Your task to perform on an android device: turn on notifications settings in the gmail app Image 0: 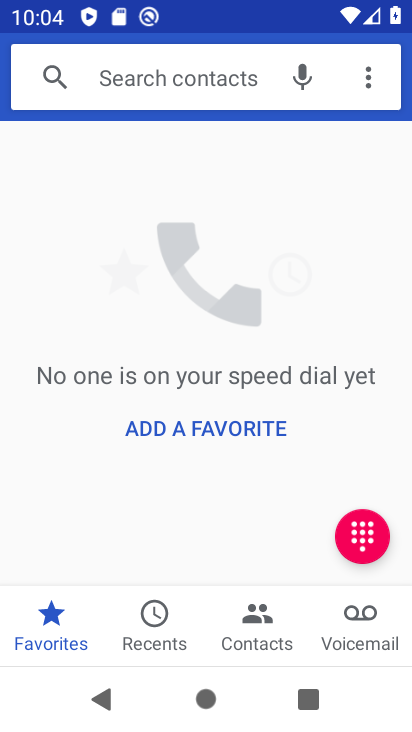
Step 0: press home button
Your task to perform on an android device: turn on notifications settings in the gmail app Image 1: 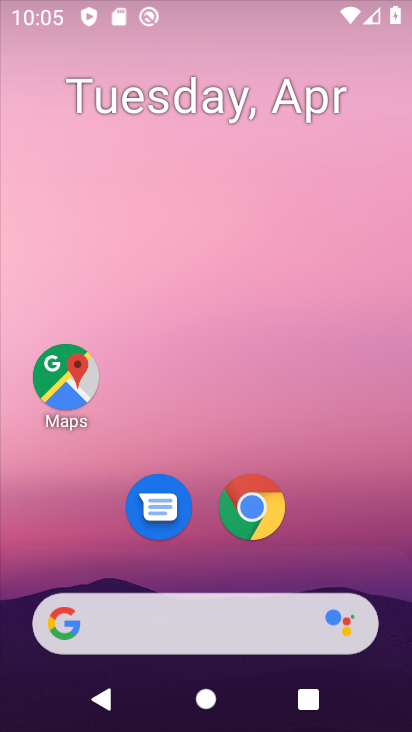
Step 1: drag from (92, 523) to (283, 178)
Your task to perform on an android device: turn on notifications settings in the gmail app Image 2: 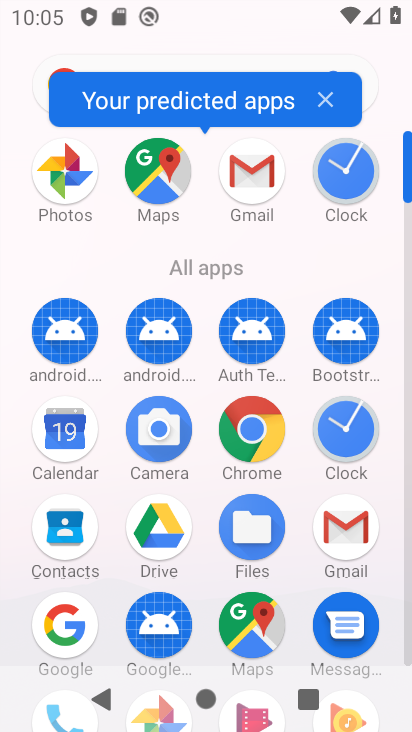
Step 2: click (349, 518)
Your task to perform on an android device: turn on notifications settings in the gmail app Image 3: 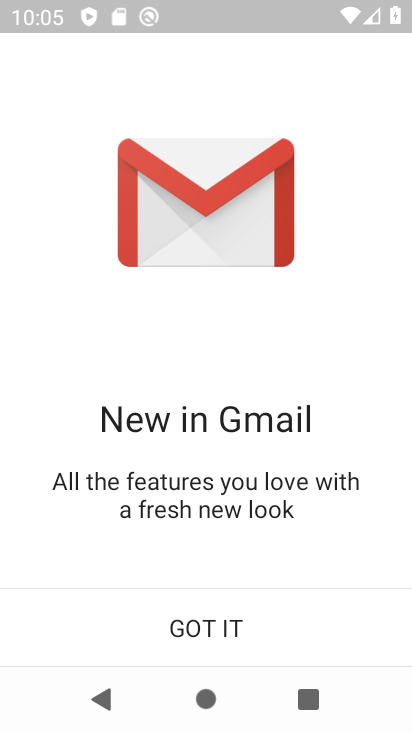
Step 3: click (197, 633)
Your task to perform on an android device: turn on notifications settings in the gmail app Image 4: 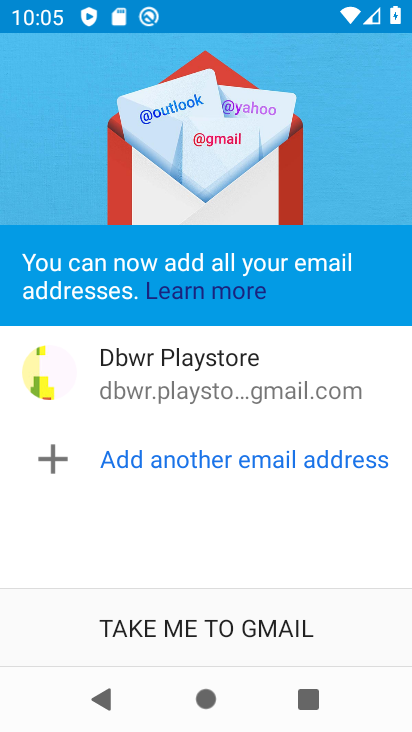
Step 4: click (183, 619)
Your task to perform on an android device: turn on notifications settings in the gmail app Image 5: 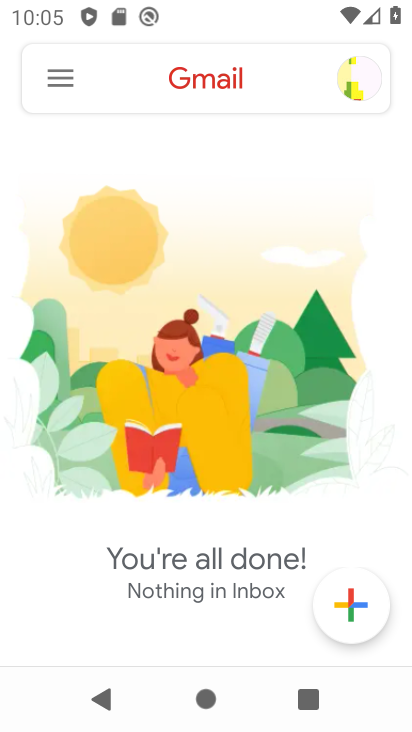
Step 5: click (59, 79)
Your task to perform on an android device: turn on notifications settings in the gmail app Image 6: 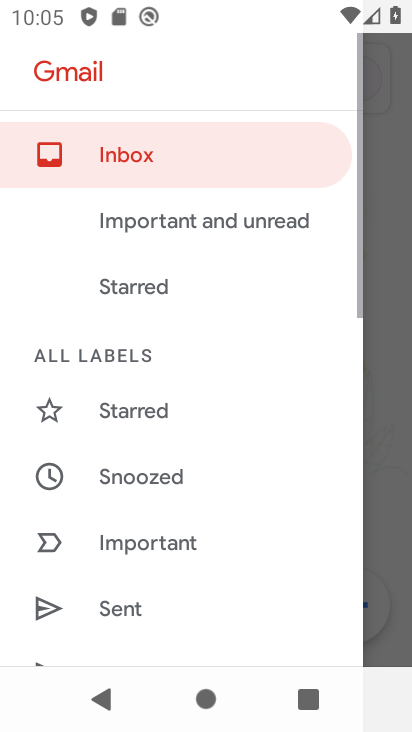
Step 6: drag from (222, 376) to (250, 154)
Your task to perform on an android device: turn on notifications settings in the gmail app Image 7: 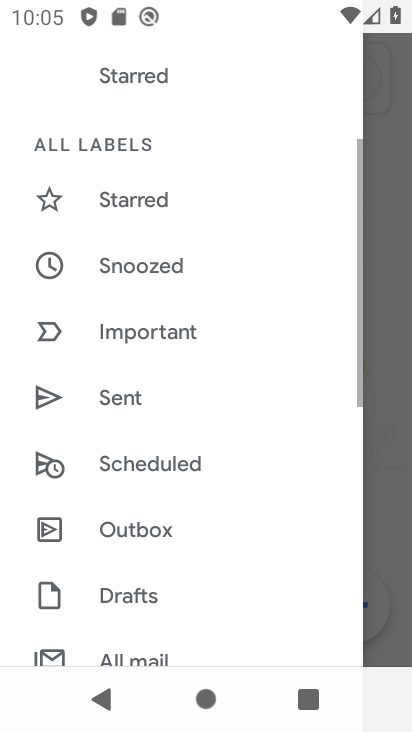
Step 7: drag from (89, 573) to (229, 195)
Your task to perform on an android device: turn on notifications settings in the gmail app Image 8: 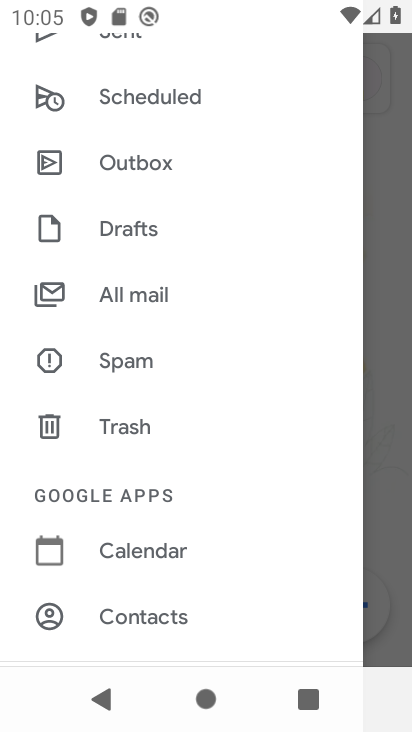
Step 8: drag from (134, 577) to (195, 265)
Your task to perform on an android device: turn on notifications settings in the gmail app Image 9: 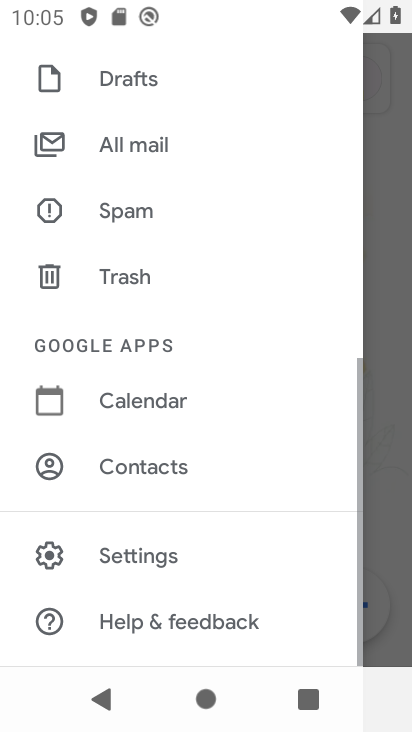
Step 9: click (126, 541)
Your task to perform on an android device: turn on notifications settings in the gmail app Image 10: 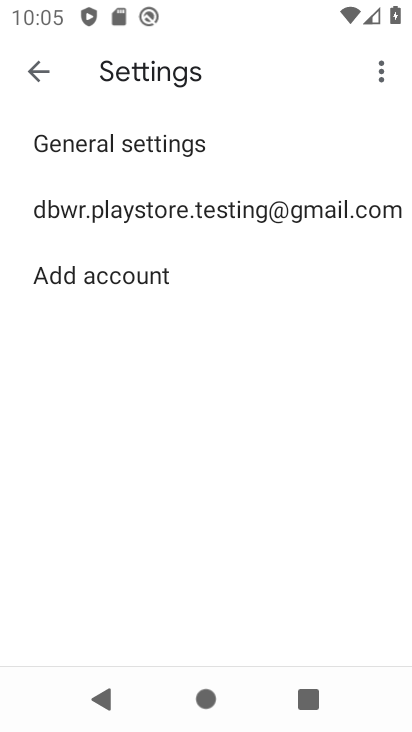
Step 10: click (180, 212)
Your task to perform on an android device: turn on notifications settings in the gmail app Image 11: 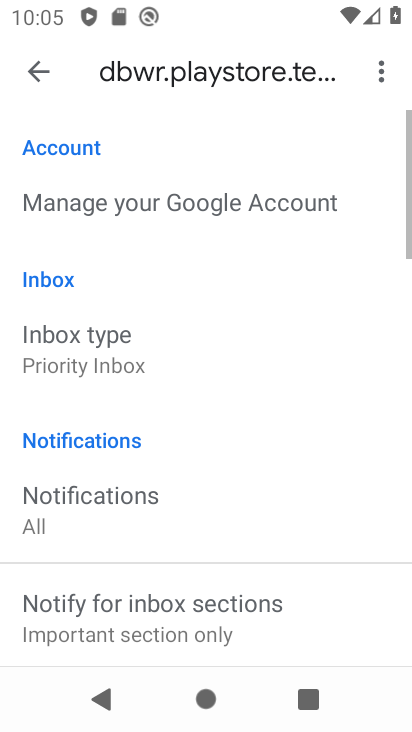
Step 11: drag from (213, 589) to (255, 297)
Your task to perform on an android device: turn on notifications settings in the gmail app Image 12: 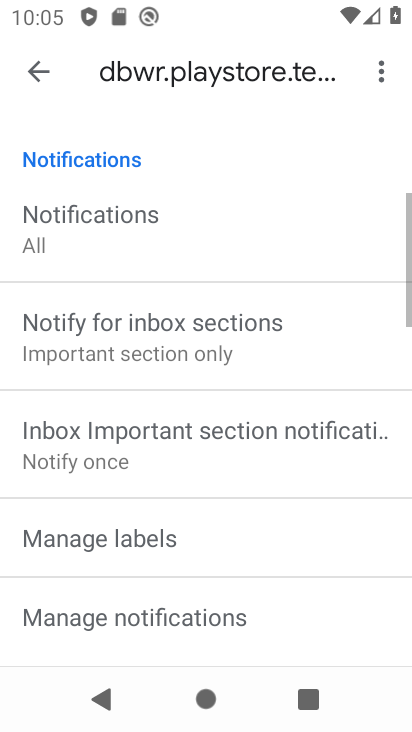
Step 12: drag from (260, 543) to (283, 276)
Your task to perform on an android device: turn on notifications settings in the gmail app Image 13: 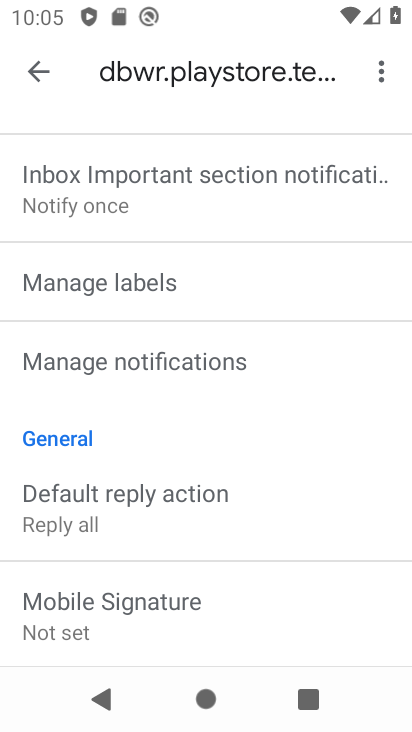
Step 13: click (95, 367)
Your task to perform on an android device: turn on notifications settings in the gmail app Image 14: 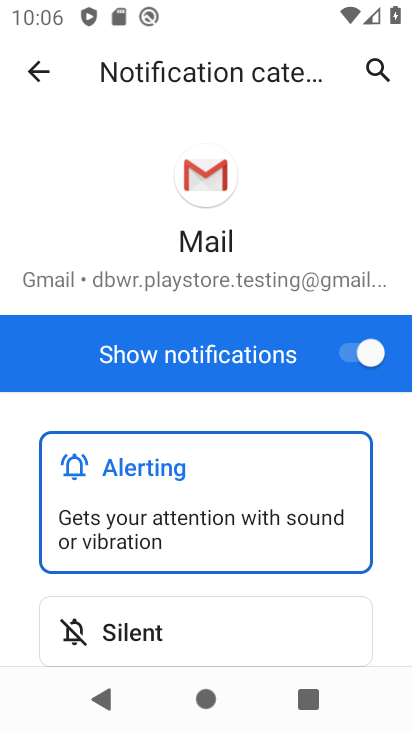
Step 14: task complete